Your task to perform on an android device: Go to Google Image 0: 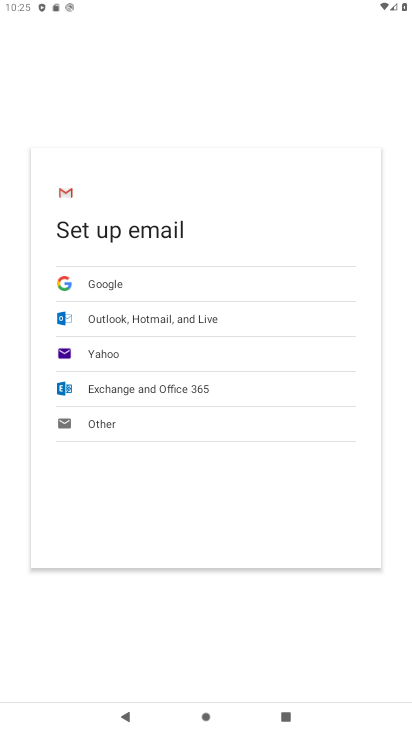
Step 0: press home button
Your task to perform on an android device: Go to Google Image 1: 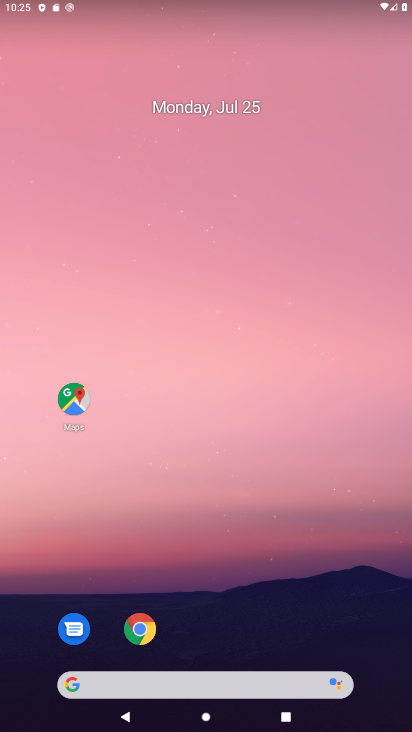
Step 1: drag from (228, 631) to (180, 62)
Your task to perform on an android device: Go to Google Image 2: 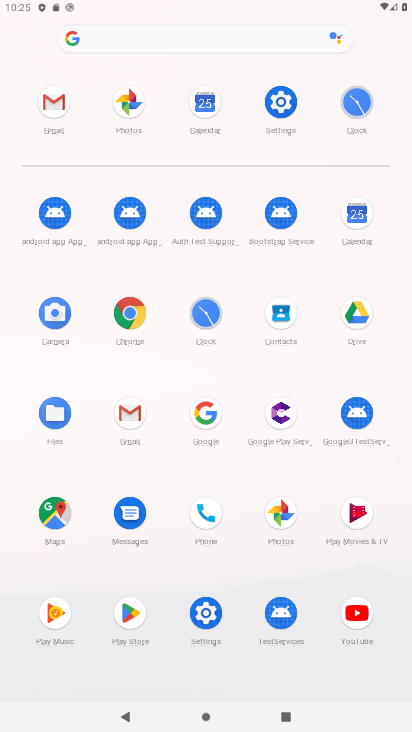
Step 2: click (204, 428)
Your task to perform on an android device: Go to Google Image 3: 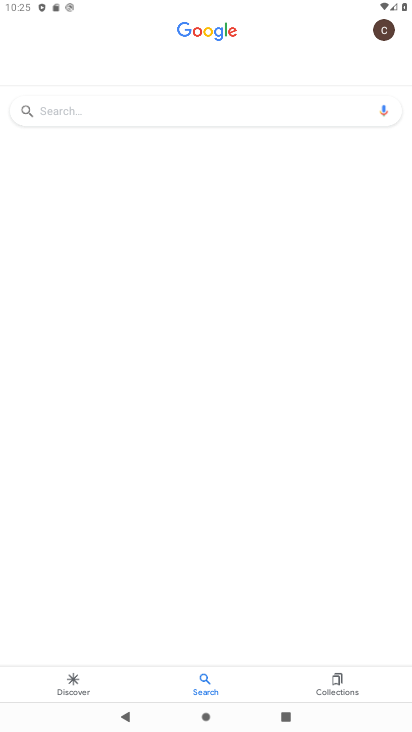
Step 3: task complete